Your task to perform on an android device: add a contact Image 0: 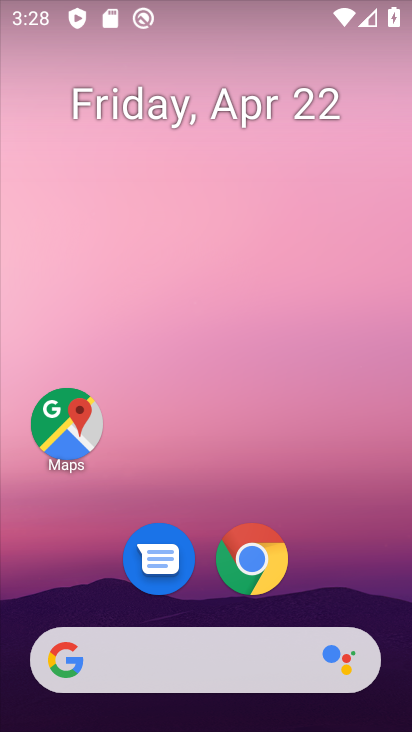
Step 0: drag from (183, 600) to (255, 116)
Your task to perform on an android device: add a contact Image 1: 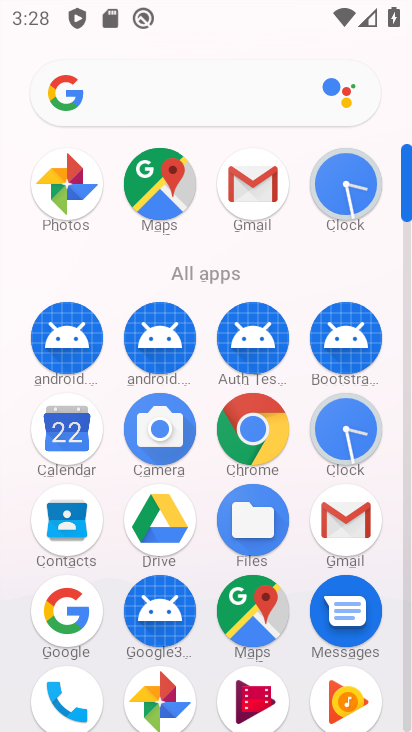
Step 1: click (81, 531)
Your task to perform on an android device: add a contact Image 2: 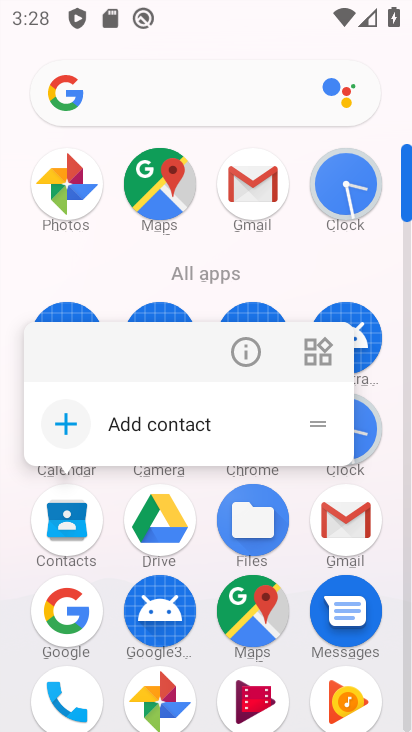
Step 2: click (78, 528)
Your task to perform on an android device: add a contact Image 3: 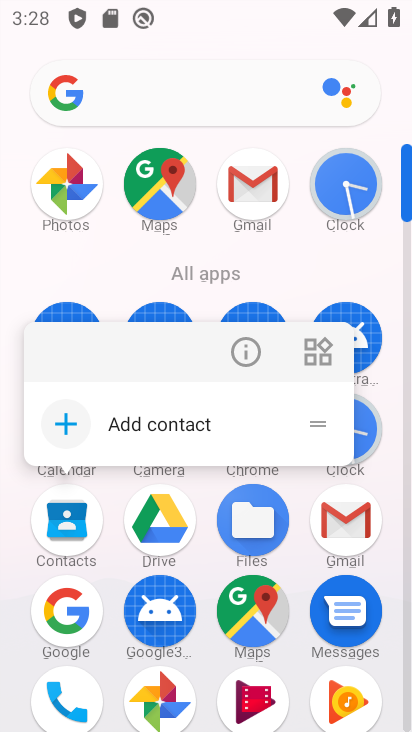
Step 3: click (77, 524)
Your task to perform on an android device: add a contact Image 4: 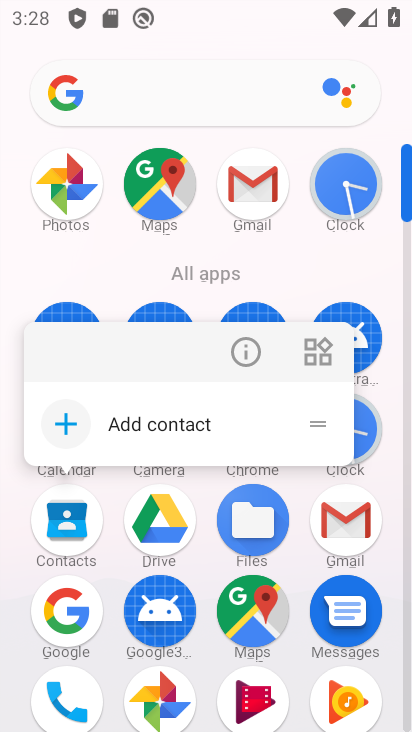
Step 4: click (60, 521)
Your task to perform on an android device: add a contact Image 5: 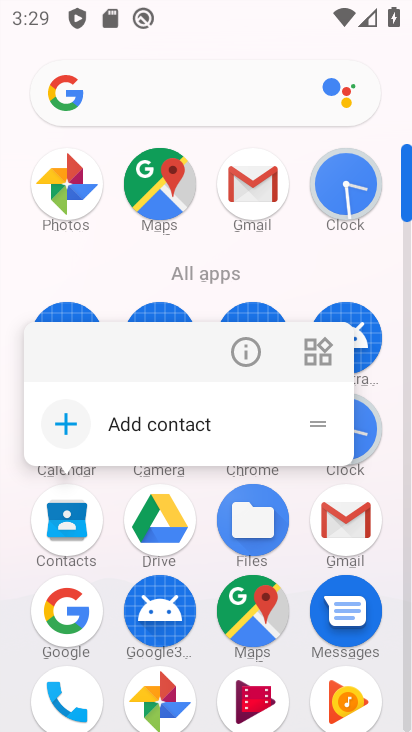
Step 5: click (58, 521)
Your task to perform on an android device: add a contact Image 6: 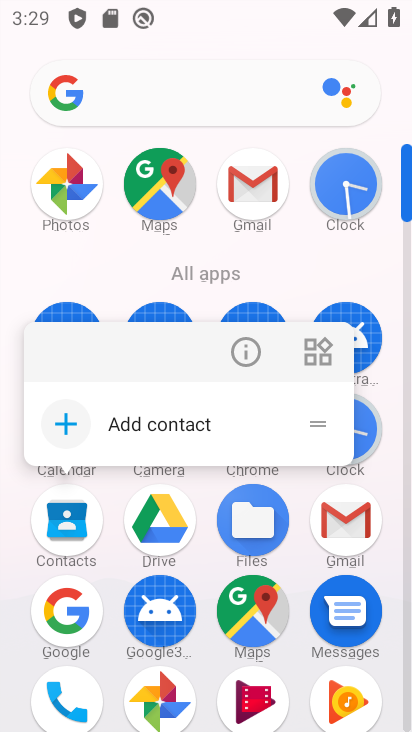
Step 6: click (67, 530)
Your task to perform on an android device: add a contact Image 7: 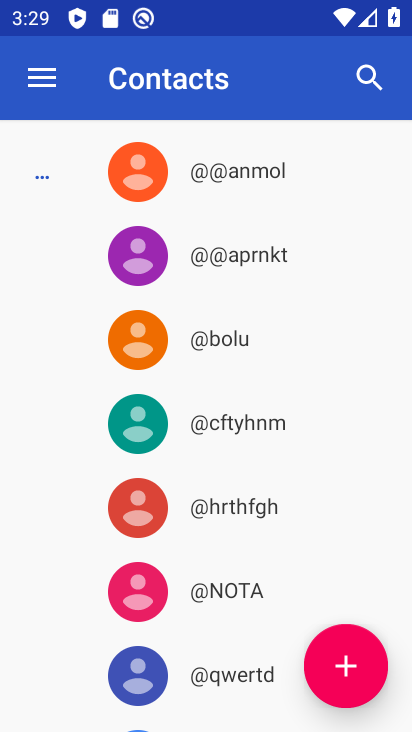
Step 7: click (356, 662)
Your task to perform on an android device: add a contact Image 8: 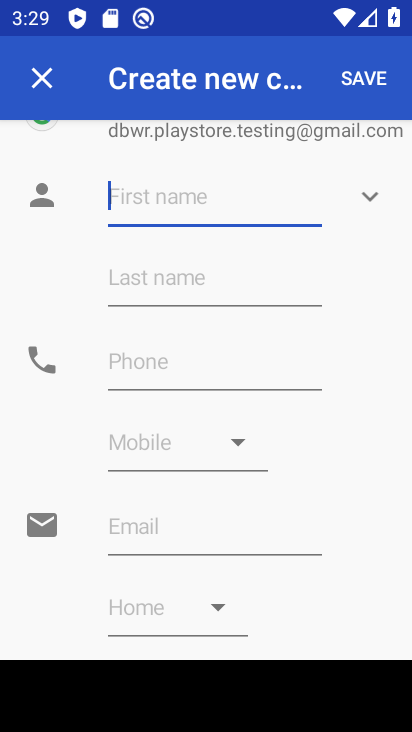
Step 8: type "janeee"
Your task to perform on an android device: add a contact Image 9: 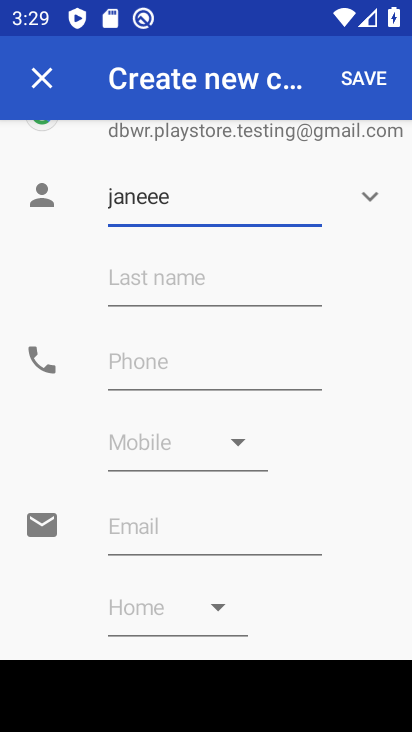
Step 9: click (167, 361)
Your task to perform on an android device: add a contact Image 10: 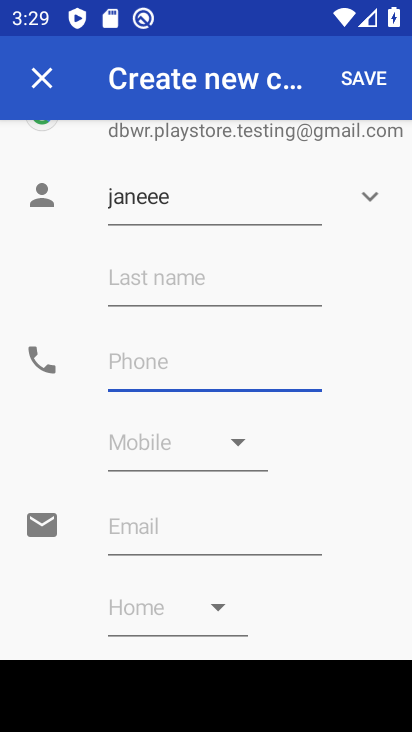
Step 10: type "2321212332"
Your task to perform on an android device: add a contact Image 11: 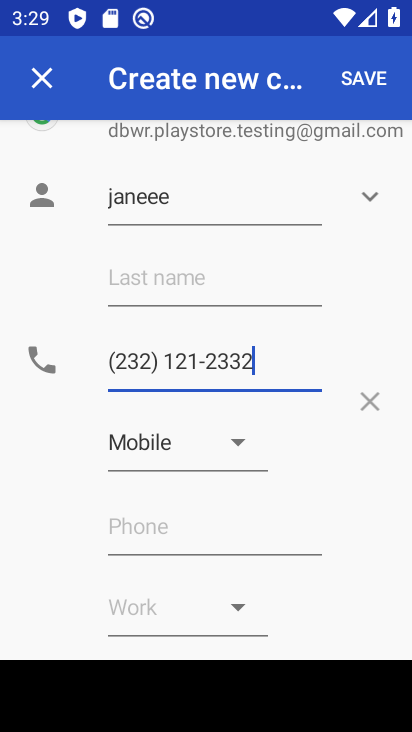
Step 11: click (366, 90)
Your task to perform on an android device: add a contact Image 12: 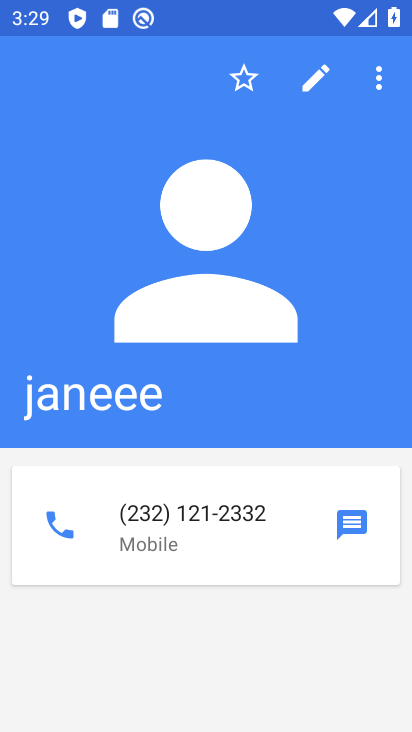
Step 12: task complete